Your task to perform on an android device: Is it going to rain tomorrow? Image 0: 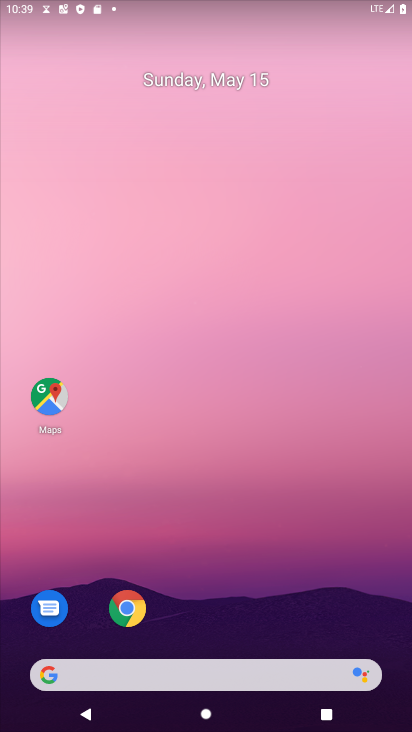
Step 0: drag from (309, 600) to (293, 73)
Your task to perform on an android device: Is it going to rain tomorrow? Image 1: 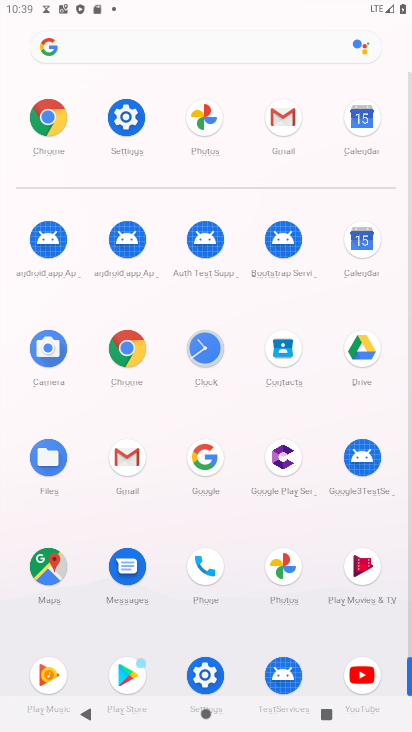
Step 1: press home button
Your task to perform on an android device: Is it going to rain tomorrow? Image 2: 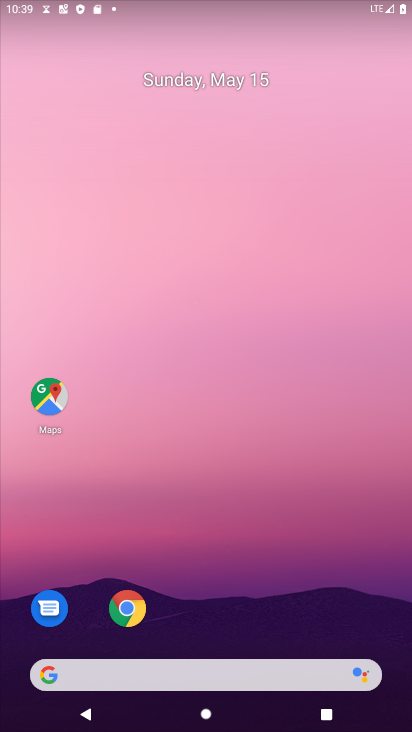
Step 2: drag from (321, 536) to (292, 0)
Your task to perform on an android device: Is it going to rain tomorrow? Image 3: 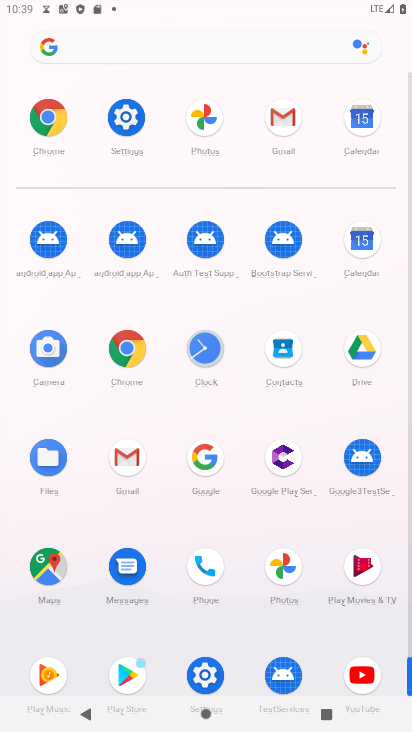
Step 3: click (200, 460)
Your task to perform on an android device: Is it going to rain tomorrow? Image 4: 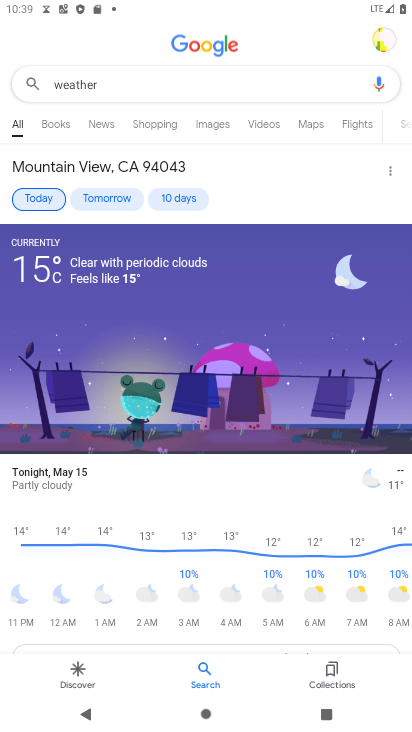
Step 4: click (132, 310)
Your task to perform on an android device: Is it going to rain tomorrow? Image 5: 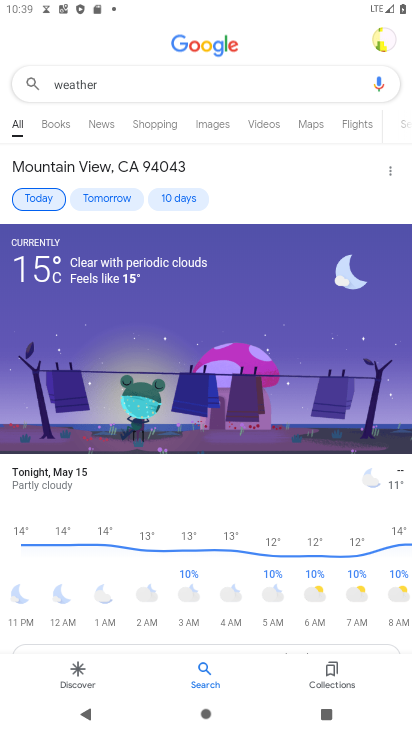
Step 5: task complete